Your task to perform on an android device: delete a single message in the gmail app Image 0: 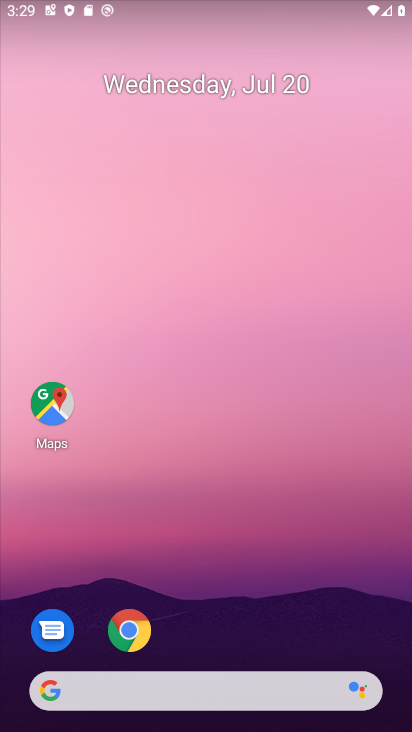
Step 0: drag from (237, 653) to (267, 132)
Your task to perform on an android device: delete a single message in the gmail app Image 1: 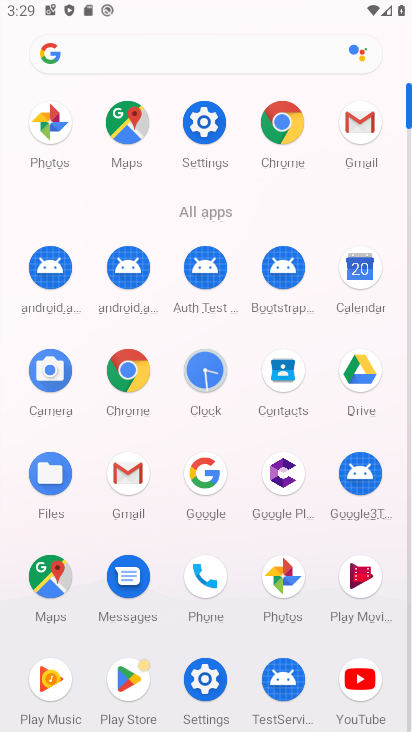
Step 1: click (125, 469)
Your task to perform on an android device: delete a single message in the gmail app Image 2: 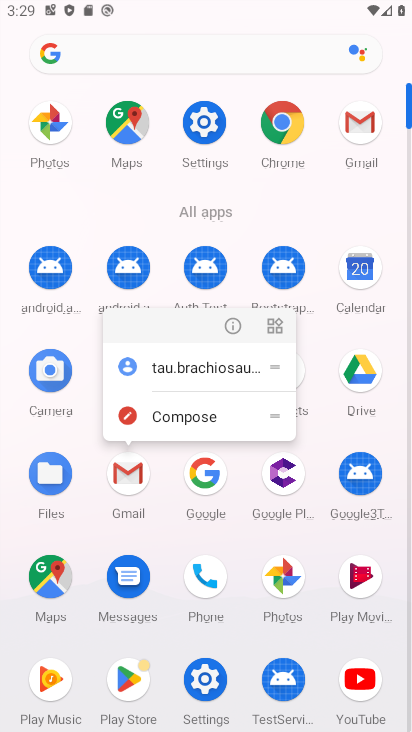
Step 2: click (125, 472)
Your task to perform on an android device: delete a single message in the gmail app Image 3: 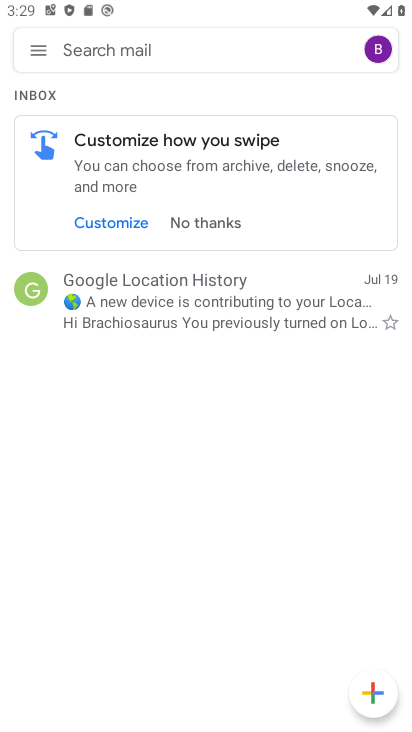
Step 3: click (41, 282)
Your task to perform on an android device: delete a single message in the gmail app Image 4: 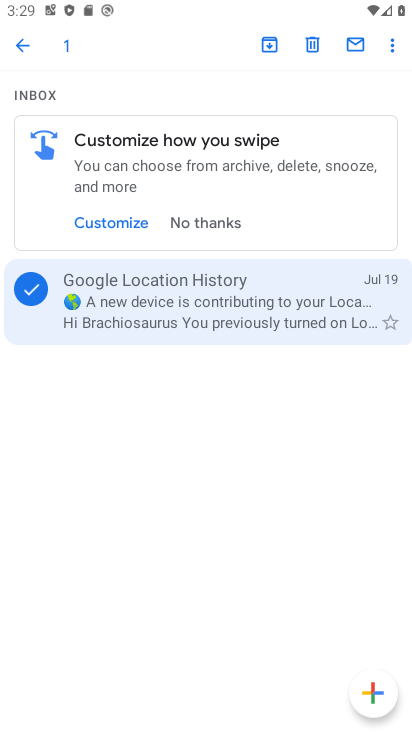
Step 4: click (310, 39)
Your task to perform on an android device: delete a single message in the gmail app Image 5: 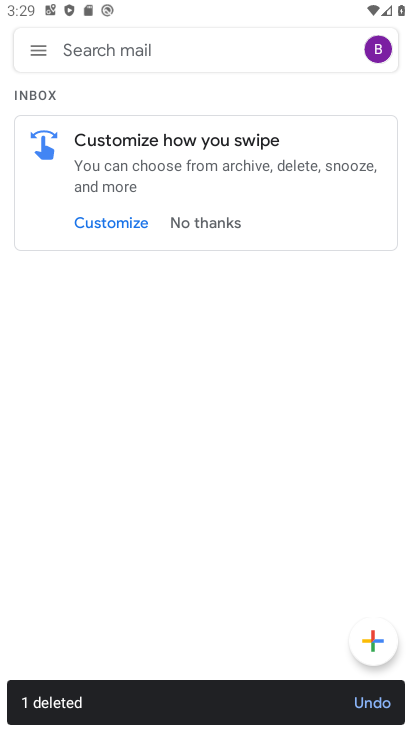
Step 5: task complete